Your task to perform on an android device: Go to ESPN.com Image 0: 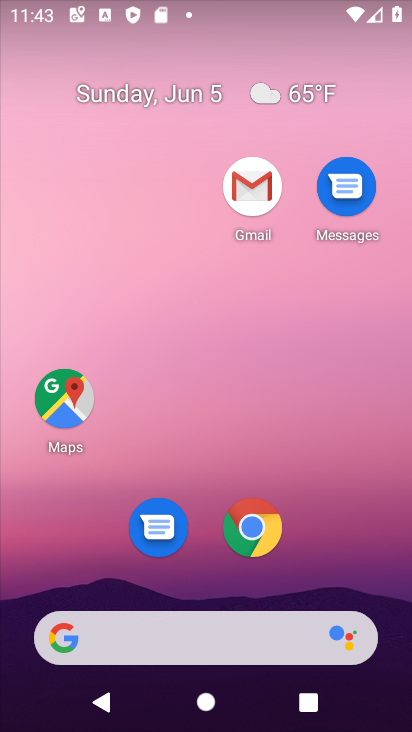
Step 0: click (253, 523)
Your task to perform on an android device: Go to ESPN.com Image 1: 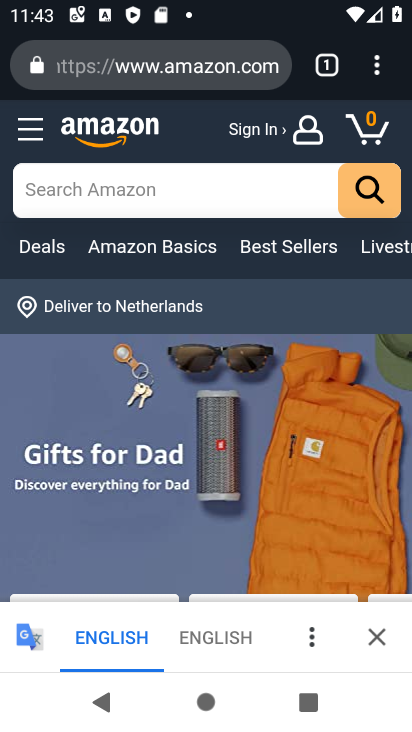
Step 1: click (331, 54)
Your task to perform on an android device: Go to ESPN.com Image 2: 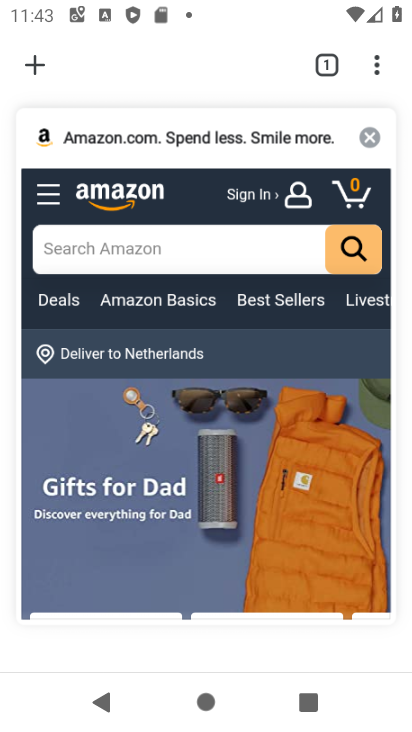
Step 2: click (37, 66)
Your task to perform on an android device: Go to ESPN.com Image 3: 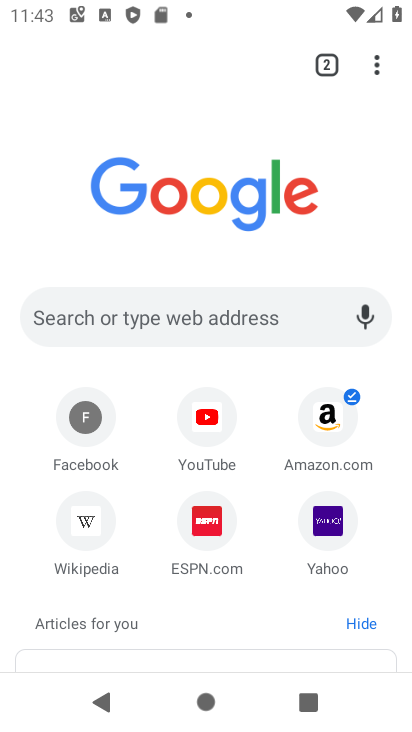
Step 3: click (197, 521)
Your task to perform on an android device: Go to ESPN.com Image 4: 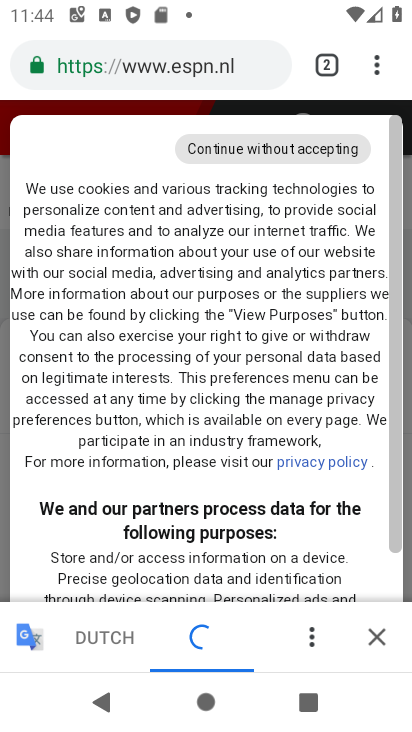
Step 4: task complete